Your task to perform on an android device: When is my next appointment? Image 0: 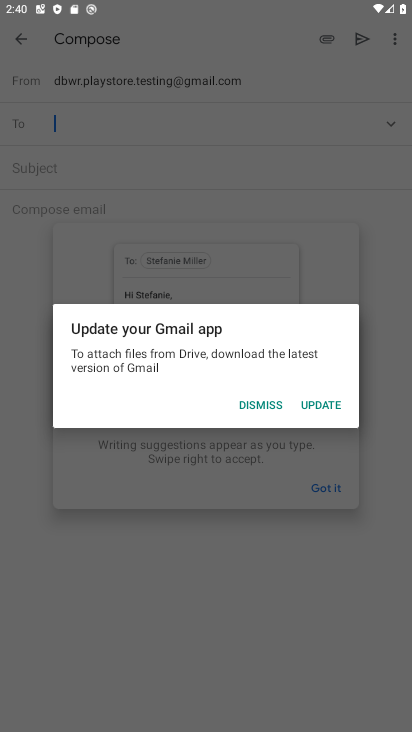
Step 0: press home button
Your task to perform on an android device: When is my next appointment? Image 1: 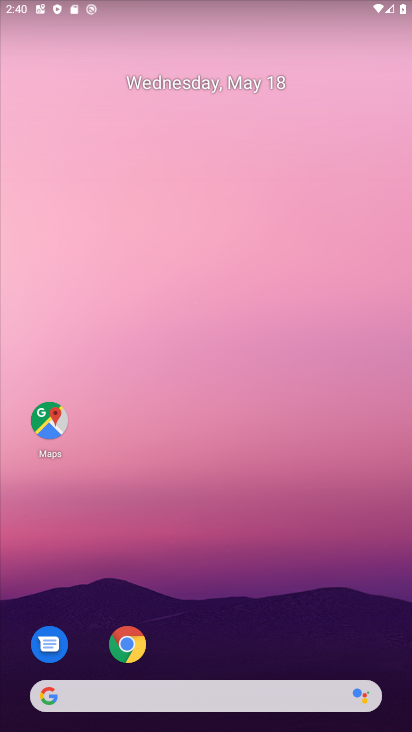
Step 1: drag from (219, 728) to (207, 292)
Your task to perform on an android device: When is my next appointment? Image 2: 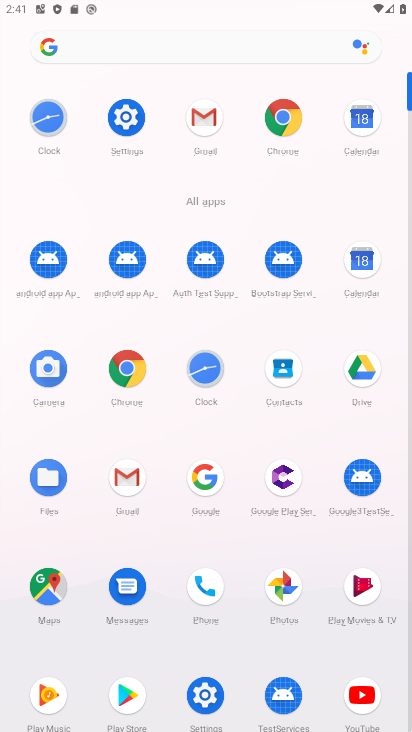
Step 2: click (357, 270)
Your task to perform on an android device: When is my next appointment? Image 3: 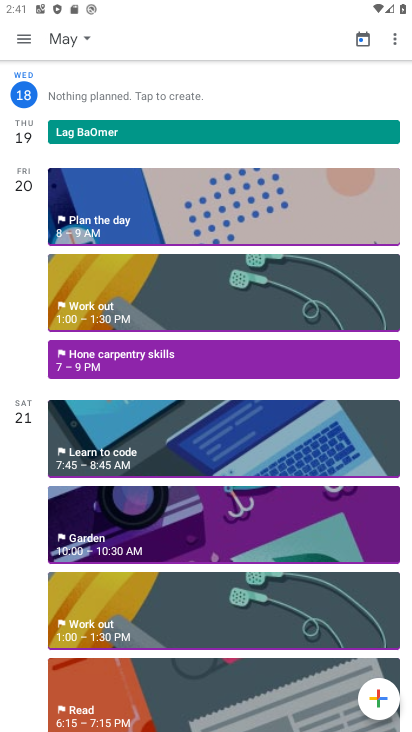
Step 3: task complete